Your task to perform on an android device: toggle notification dots Image 0: 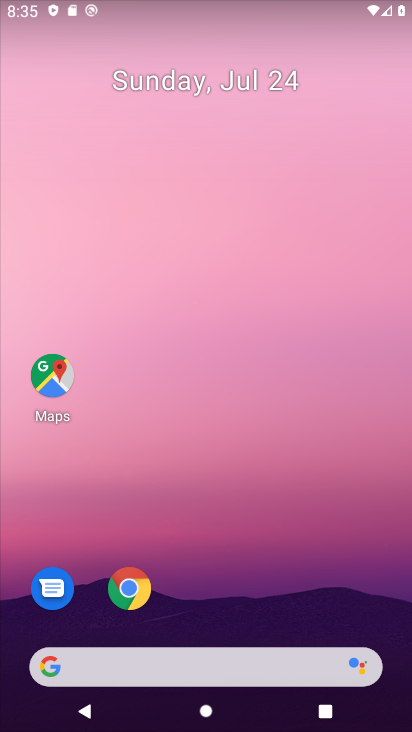
Step 0: drag from (278, 695) to (367, 3)
Your task to perform on an android device: toggle notification dots Image 1: 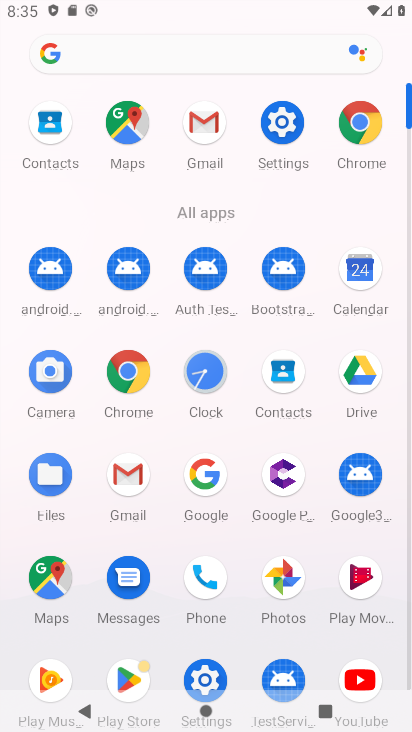
Step 1: click (285, 127)
Your task to perform on an android device: toggle notification dots Image 2: 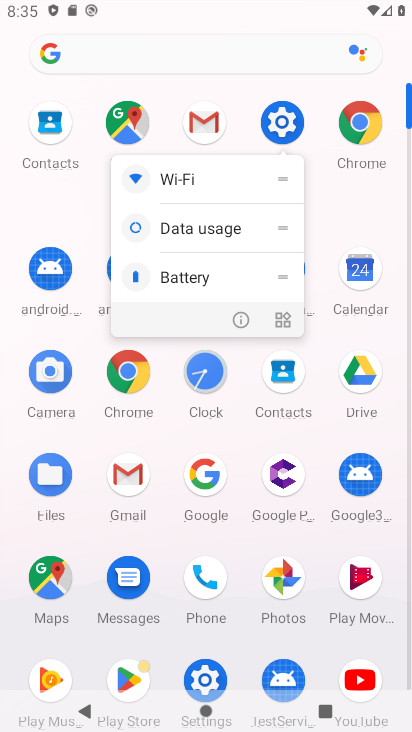
Step 2: click (285, 127)
Your task to perform on an android device: toggle notification dots Image 3: 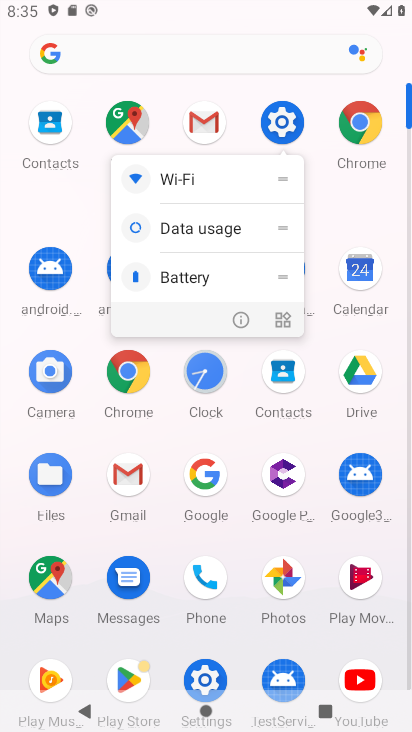
Step 3: click (285, 127)
Your task to perform on an android device: toggle notification dots Image 4: 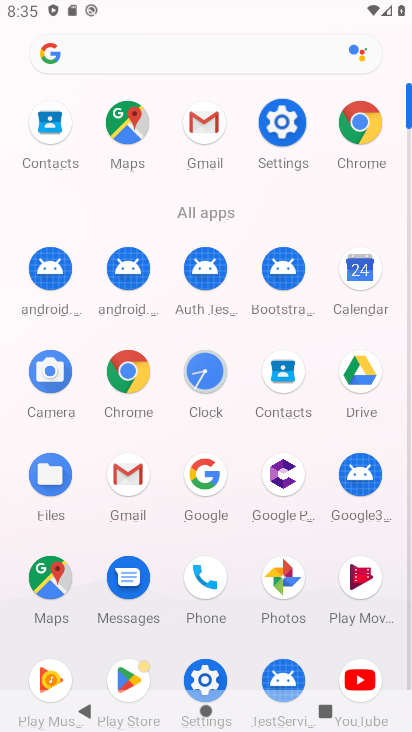
Step 4: click (285, 127)
Your task to perform on an android device: toggle notification dots Image 5: 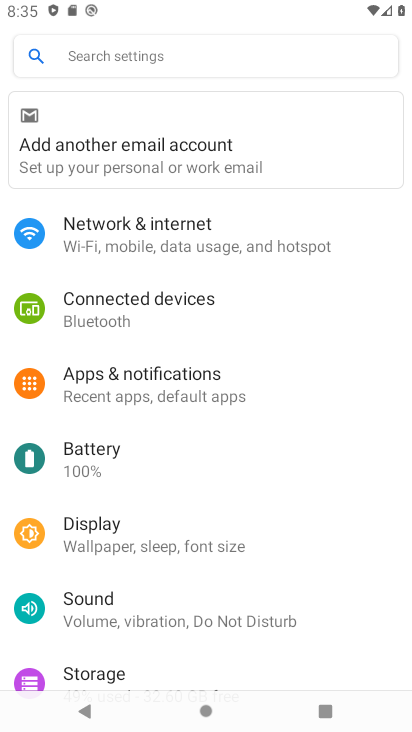
Step 5: click (219, 397)
Your task to perform on an android device: toggle notification dots Image 6: 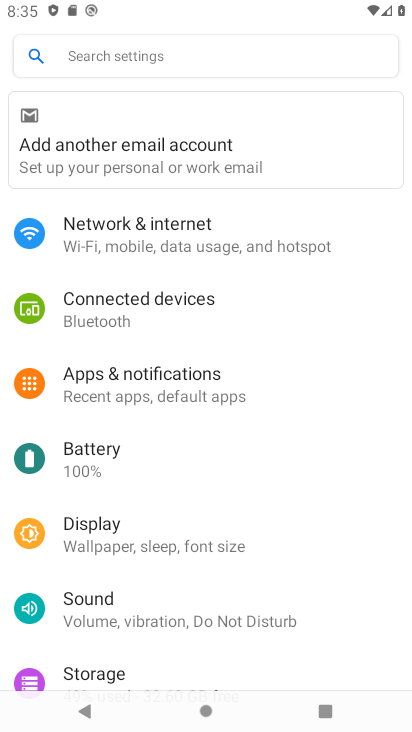
Step 6: click (218, 385)
Your task to perform on an android device: toggle notification dots Image 7: 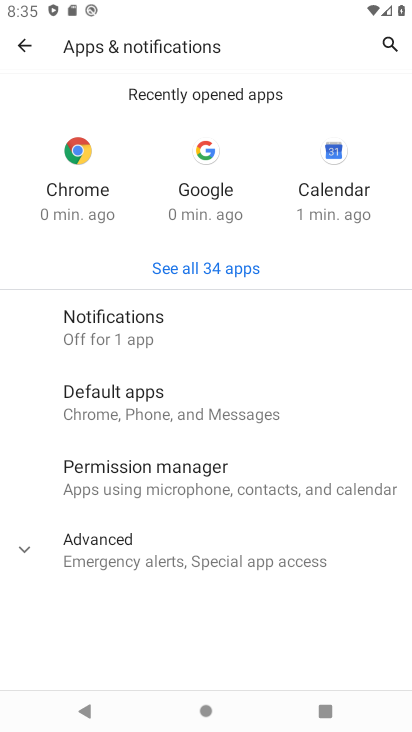
Step 7: click (237, 305)
Your task to perform on an android device: toggle notification dots Image 8: 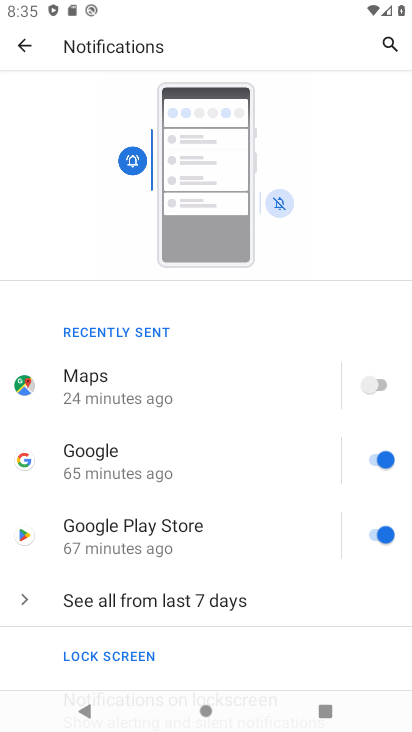
Step 8: drag from (165, 412) to (181, 9)
Your task to perform on an android device: toggle notification dots Image 9: 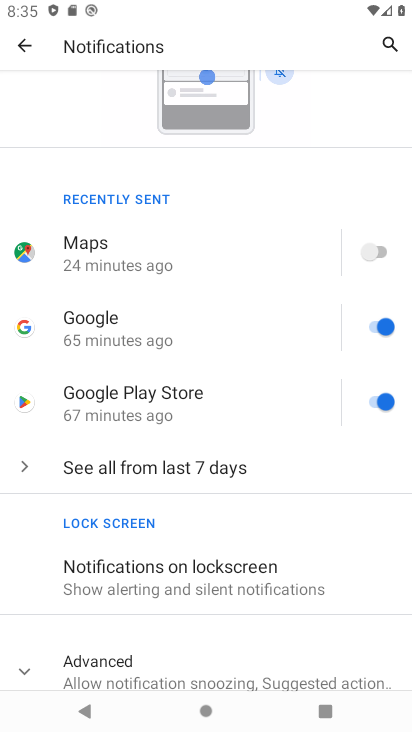
Step 9: click (245, 671)
Your task to perform on an android device: toggle notification dots Image 10: 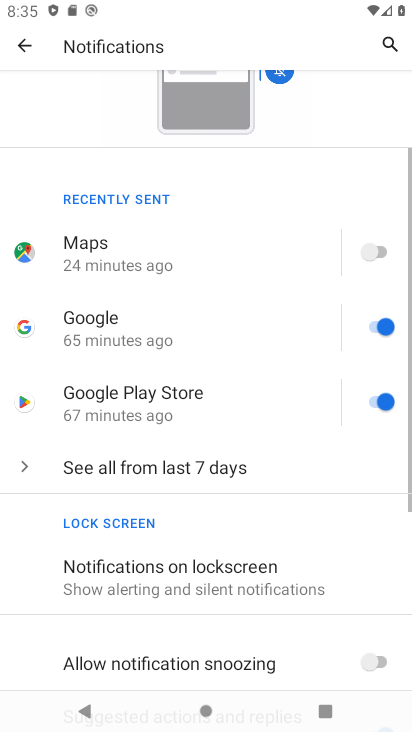
Step 10: drag from (275, 547) to (221, 24)
Your task to perform on an android device: toggle notification dots Image 11: 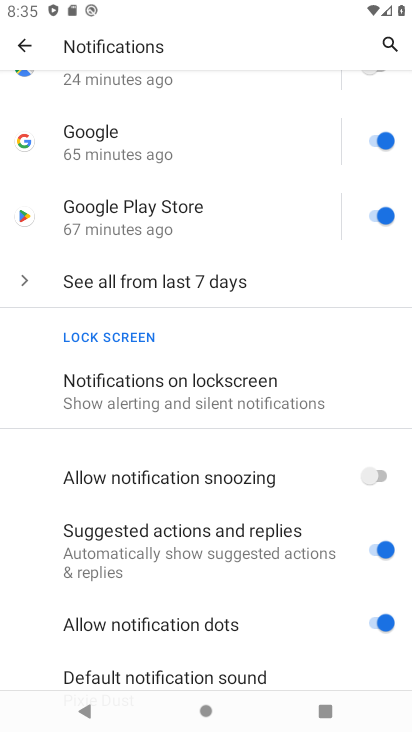
Step 11: click (388, 619)
Your task to perform on an android device: toggle notification dots Image 12: 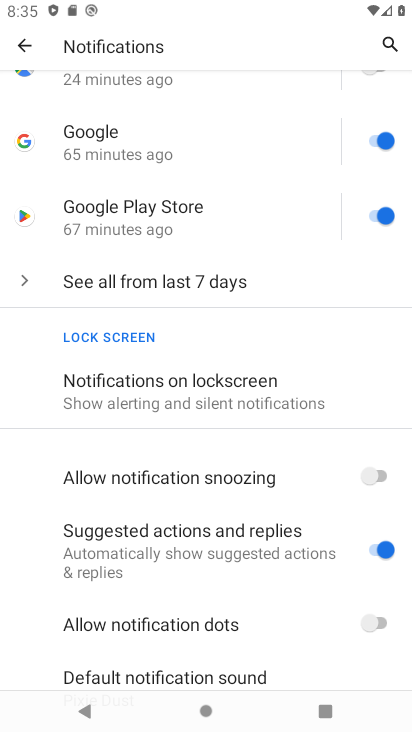
Step 12: task complete